Your task to perform on an android device: Open calendar and show me the fourth week of next month Image 0: 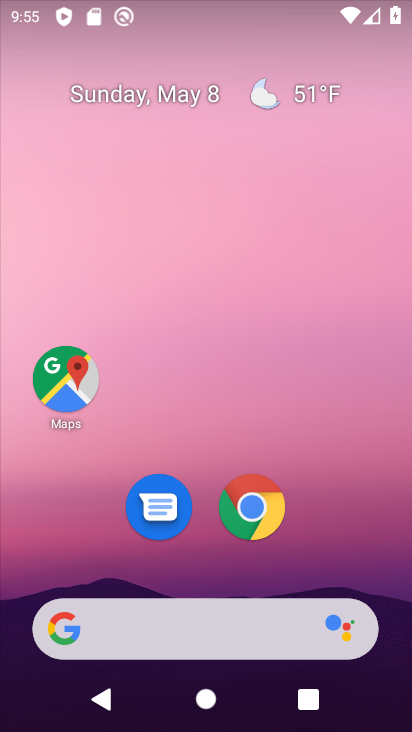
Step 0: drag from (211, 566) to (215, 67)
Your task to perform on an android device: Open calendar and show me the fourth week of next month Image 1: 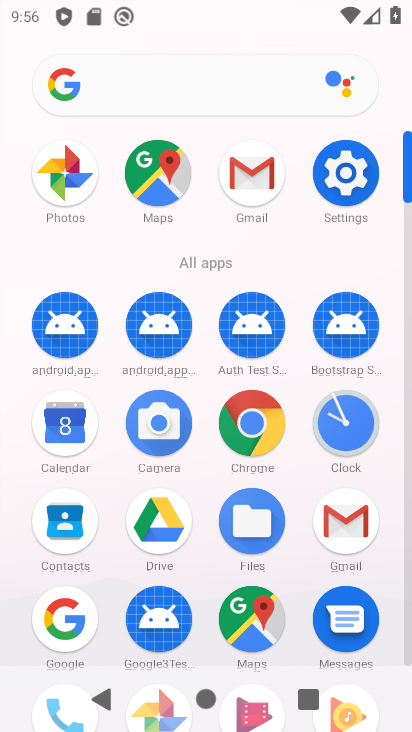
Step 1: click (73, 421)
Your task to perform on an android device: Open calendar and show me the fourth week of next month Image 2: 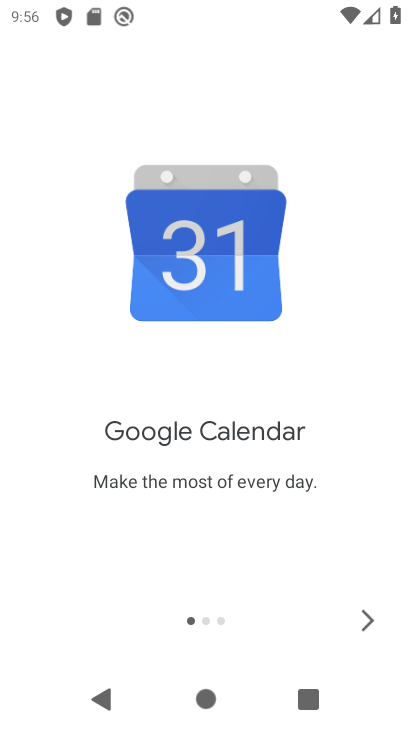
Step 2: click (358, 620)
Your task to perform on an android device: Open calendar and show me the fourth week of next month Image 3: 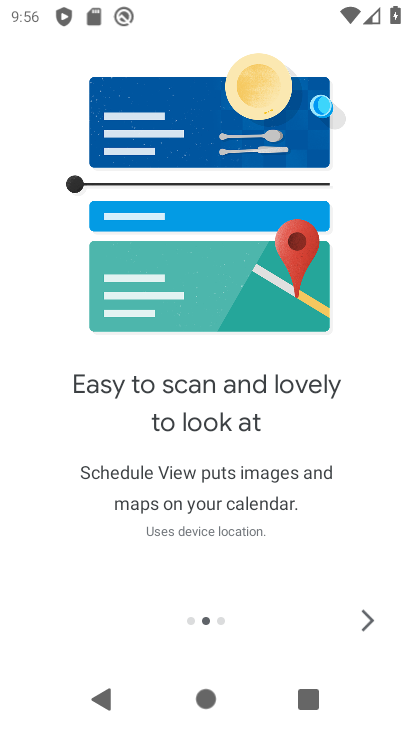
Step 3: click (368, 617)
Your task to perform on an android device: Open calendar and show me the fourth week of next month Image 4: 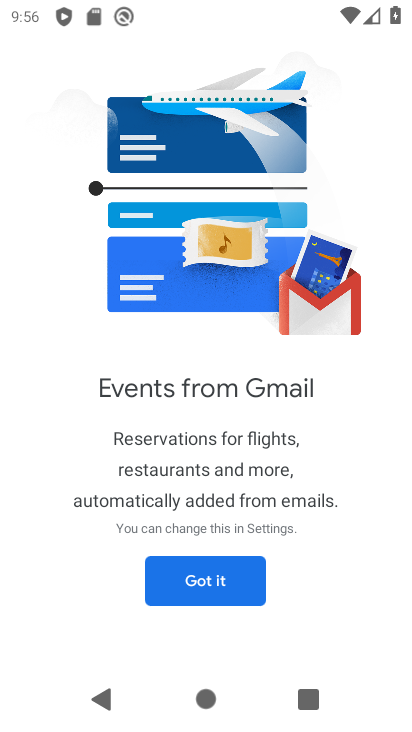
Step 4: click (215, 584)
Your task to perform on an android device: Open calendar and show me the fourth week of next month Image 5: 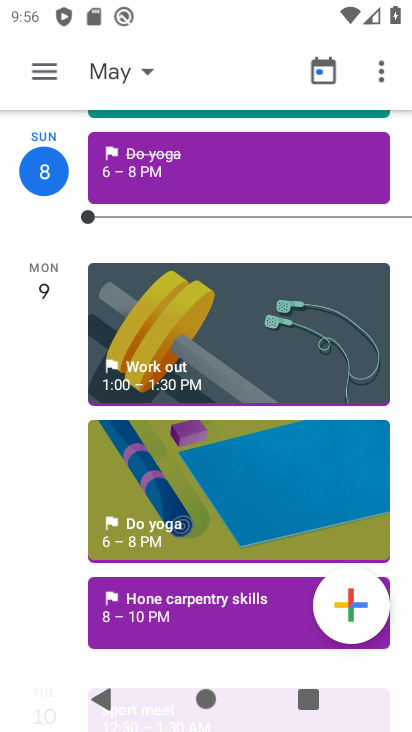
Step 5: click (44, 75)
Your task to perform on an android device: Open calendar and show me the fourth week of next month Image 6: 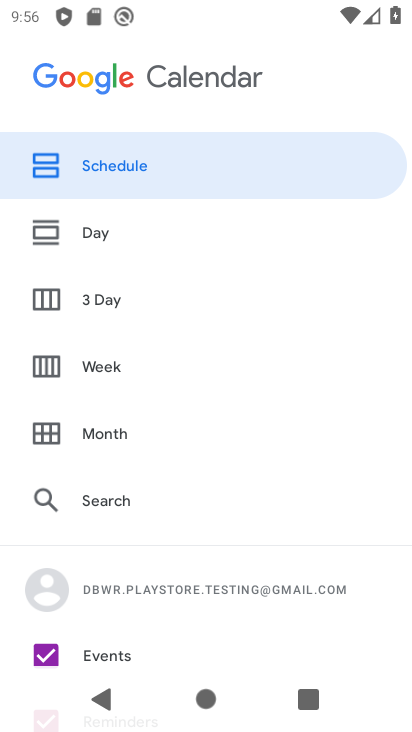
Step 6: click (87, 367)
Your task to perform on an android device: Open calendar and show me the fourth week of next month Image 7: 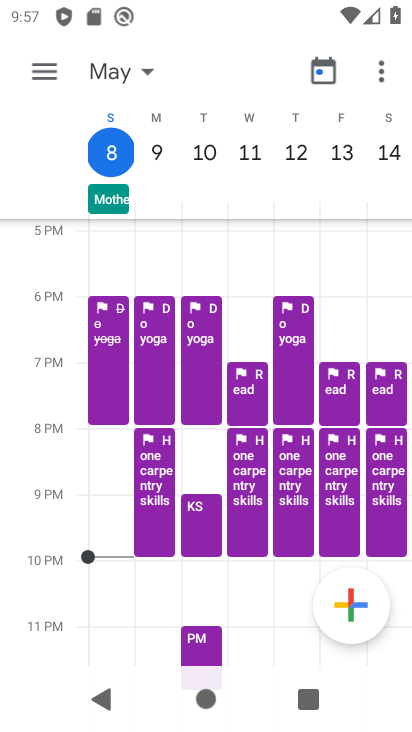
Step 7: drag from (380, 153) to (20, 148)
Your task to perform on an android device: Open calendar and show me the fourth week of next month Image 8: 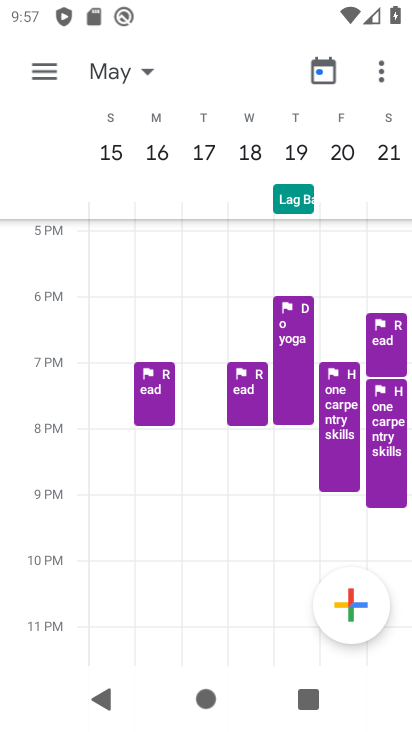
Step 8: drag from (386, 151) to (0, 158)
Your task to perform on an android device: Open calendar and show me the fourth week of next month Image 9: 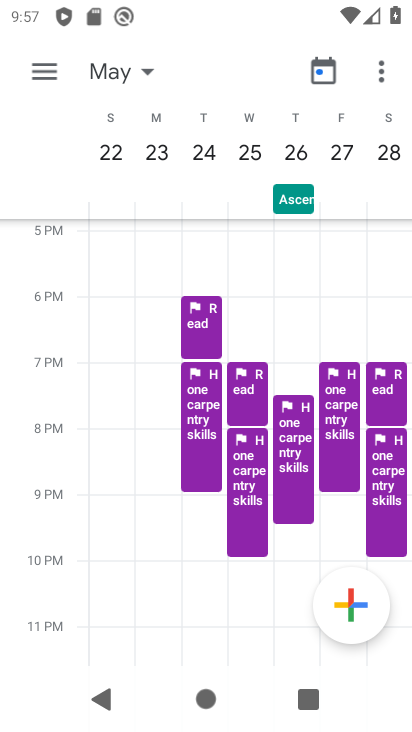
Step 9: drag from (375, 159) to (63, 152)
Your task to perform on an android device: Open calendar and show me the fourth week of next month Image 10: 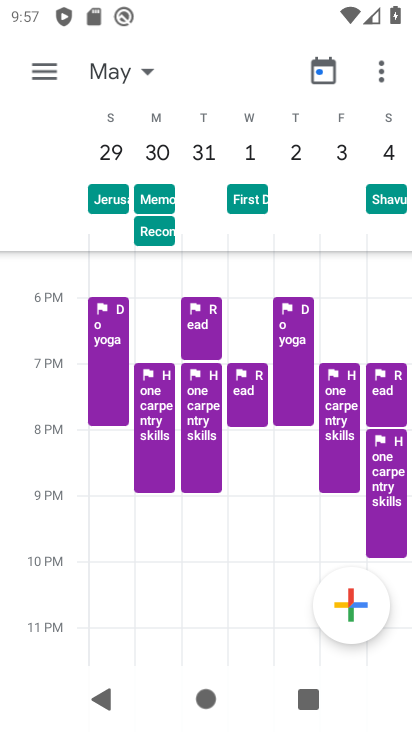
Step 10: drag from (378, 151) to (8, 173)
Your task to perform on an android device: Open calendar and show me the fourth week of next month Image 11: 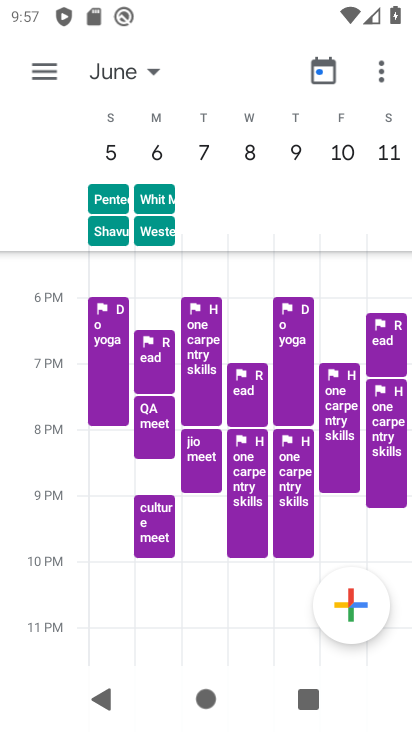
Step 11: drag from (377, 146) to (6, 181)
Your task to perform on an android device: Open calendar and show me the fourth week of next month Image 12: 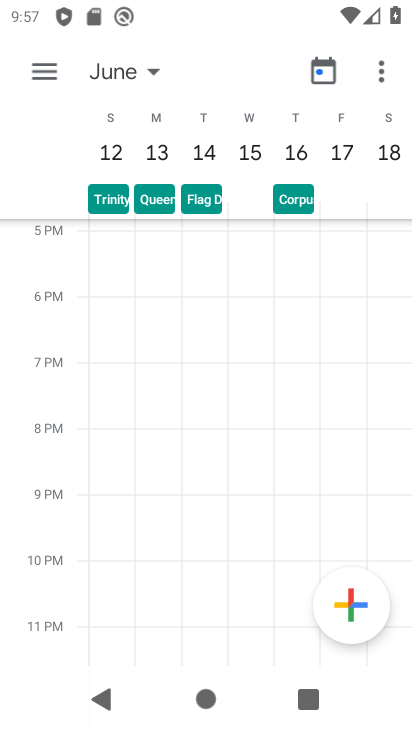
Step 12: drag from (391, 150) to (4, 156)
Your task to perform on an android device: Open calendar and show me the fourth week of next month Image 13: 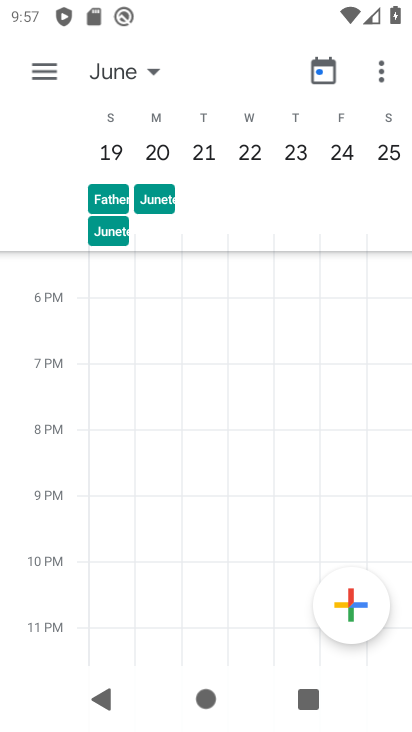
Step 13: drag from (386, 152) to (0, 166)
Your task to perform on an android device: Open calendar and show me the fourth week of next month Image 14: 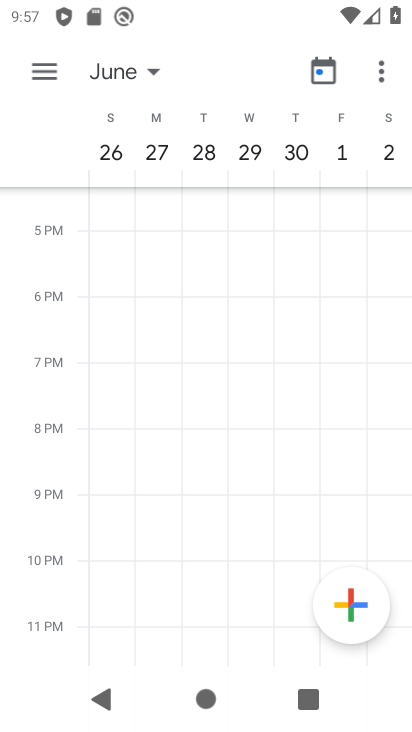
Step 14: click (101, 158)
Your task to perform on an android device: Open calendar and show me the fourth week of next month Image 15: 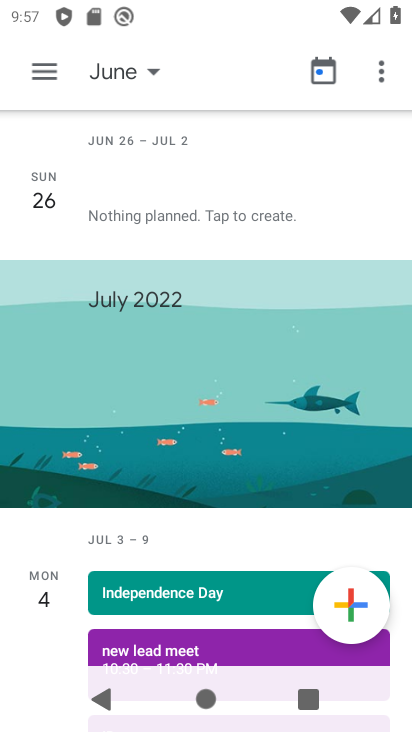
Step 15: task complete